Your task to perform on an android device: turn pop-ups on in chrome Image 0: 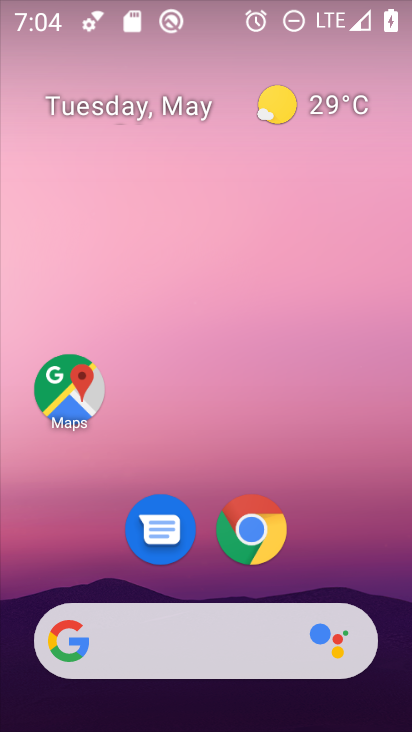
Step 0: drag from (343, 454) to (199, 2)
Your task to perform on an android device: turn pop-ups on in chrome Image 1: 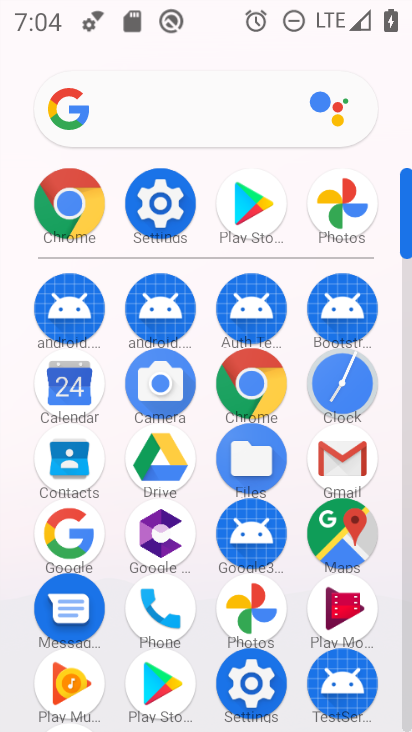
Step 1: click (69, 215)
Your task to perform on an android device: turn pop-ups on in chrome Image 2: 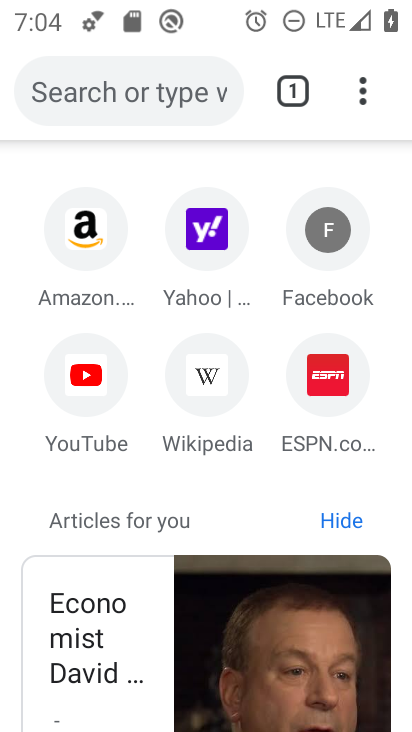
Step 2: click (374, 88)
Your task to perform on an android device: turn pop-ups on in chrome Image 3: 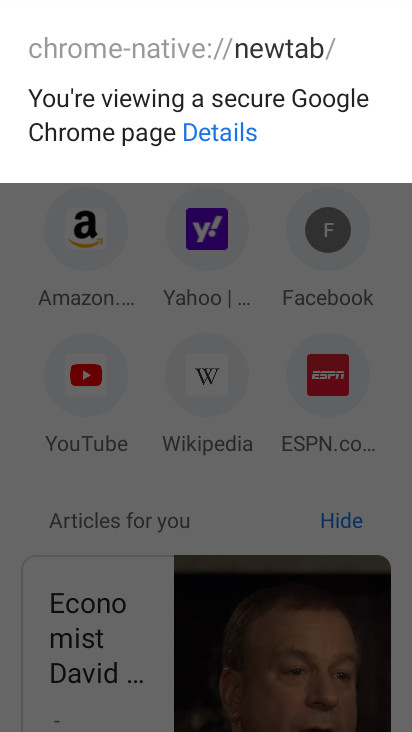
Step 3: press back button
Your task to perform on an android device: turn pop-ups on in chrome Image 4: 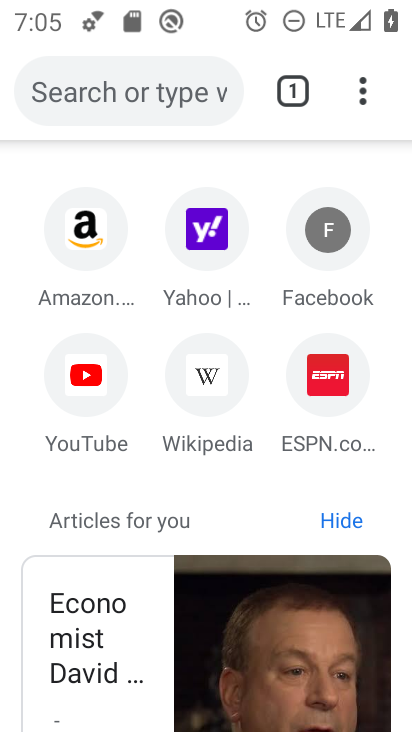
Step 4: click (359, 83)
Your task to perform on an android device: turn pop-ups on in chrome Image 5: 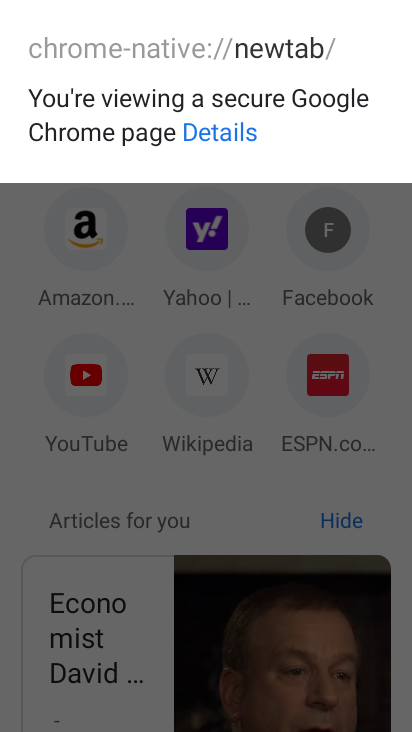
Step 5: press back button
Your task to perform on an android device: turn pop-ups on in chrome Image 6: 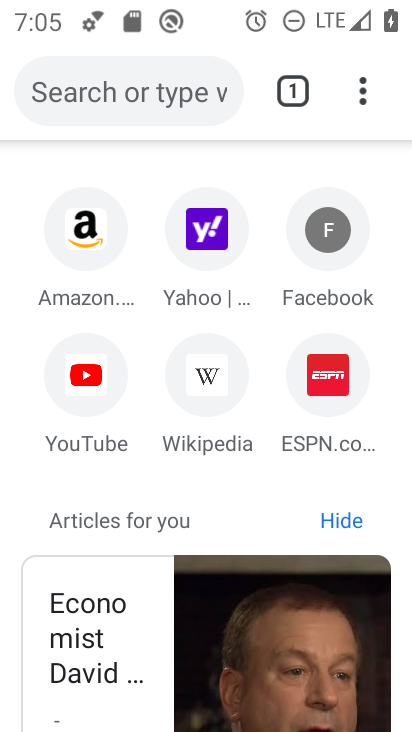
Step 6: click (375, 88)
Your task to perform on an android device: turn pop-ups on in chrome Image 7: 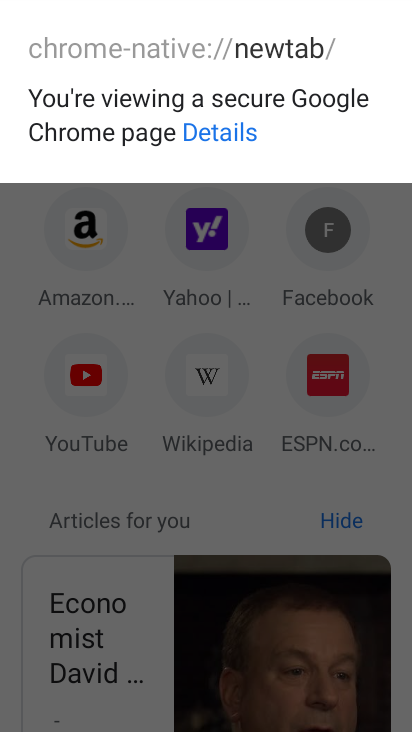
Step 7: press back button
Your task to perform on an android device: turn pop-ups on in chrome Image 8: 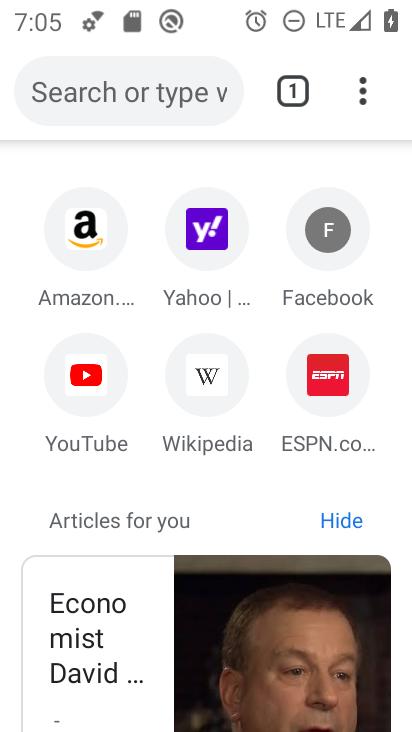
Step 8: click (369, 78)
Your task to perform on an android device: turn pop-ups on in chrome Image 9: 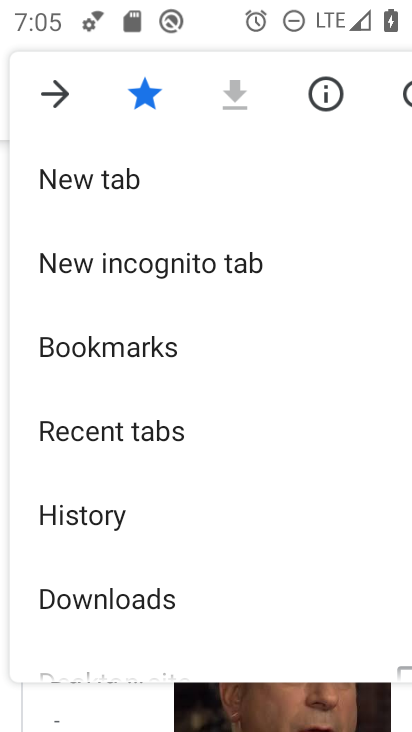
Step 9: drag from (113, 655) to (189, 118)
Your task to perform on an android device: turn pop-ups on in chrome Image 10: 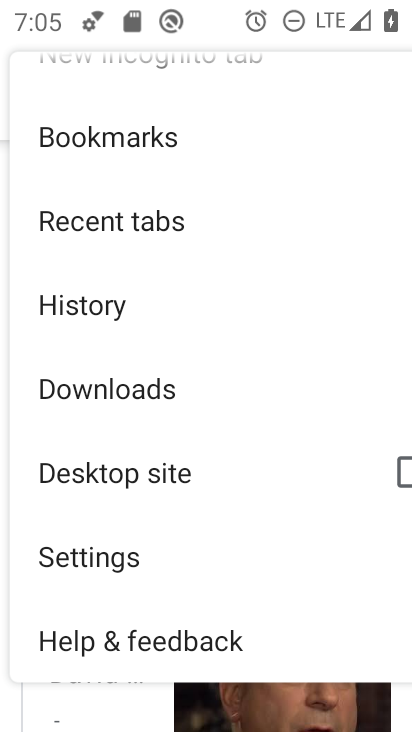
Step 10: click (124, 566)
Your task to perform on an android device: turn pop-ups on in chrome Image 11: 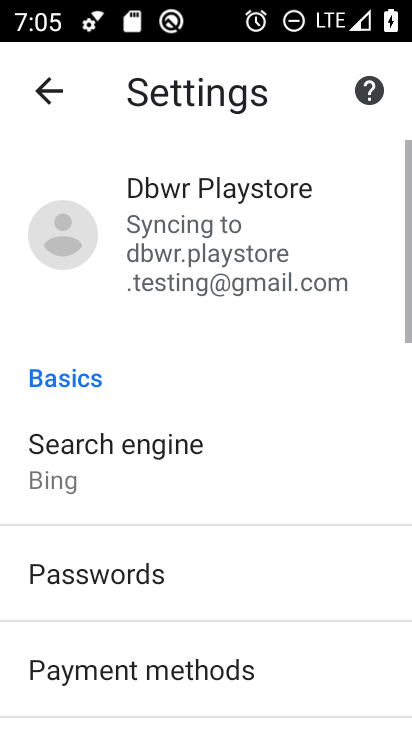
Step 11: drag from (115, 598) to (123, 58)
Your task to perform on an android device: turn pop-ups on in chrome Image 12: 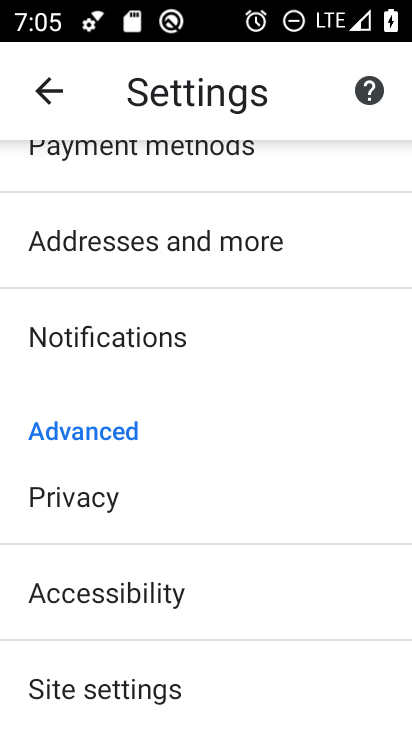
Step 12: drag from (158, 683) to (167, 487)
Your task to perform on an android device: turn pop-ups on in chrome Image 13: 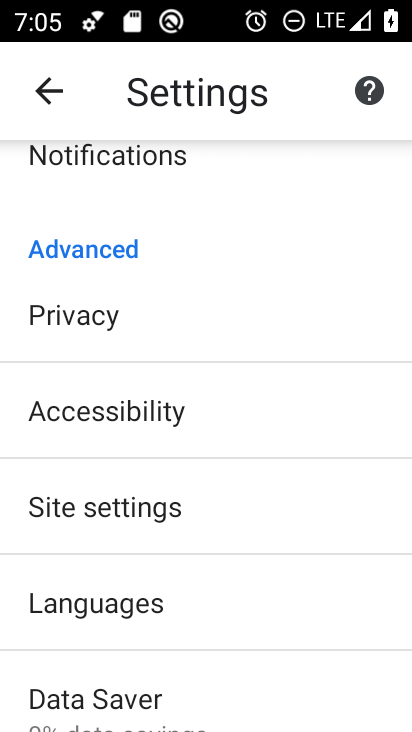
Step 13: click (129, 514)
Your task to perform on an android device: turn pop-ups on in chrome Image 14: 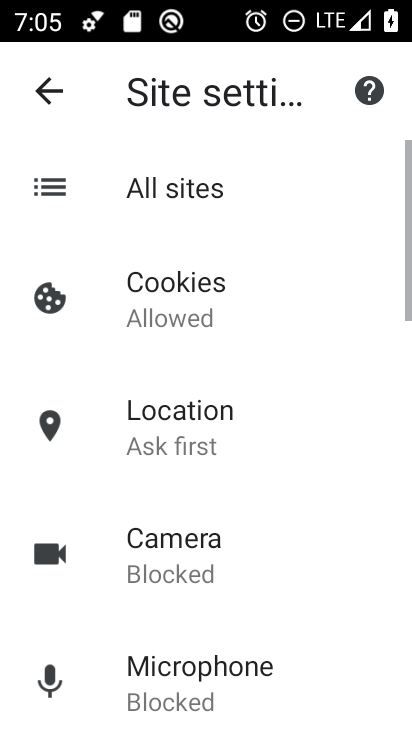
Step 14: drag from (166, 673) to (218, 224)
Your task to perform on an android device: turn pop-ups on in chrome Image 15: 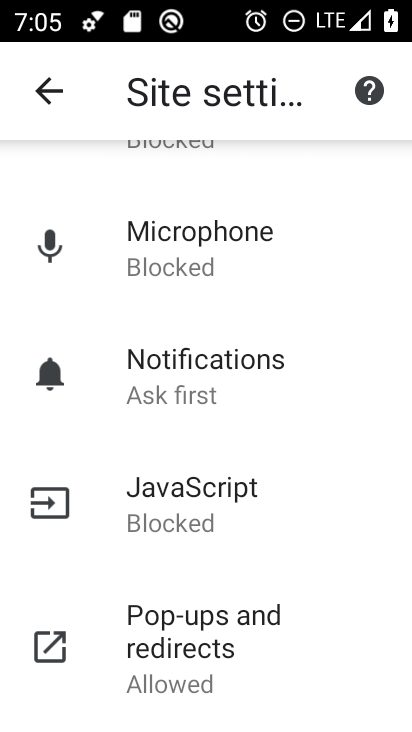
Step 15: click (218, 666)
Your task to perform on an android device: turn pop-ups on in chrome Image 16: 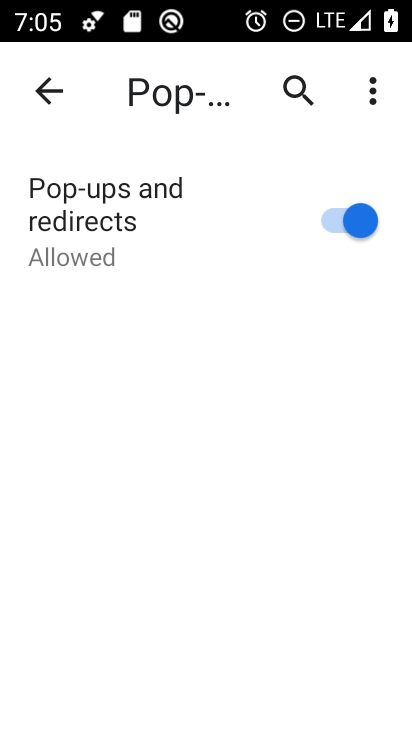
Step 16: task complete